Your task to perform on an android device: Open Chrome and go to the settings page Image 0: 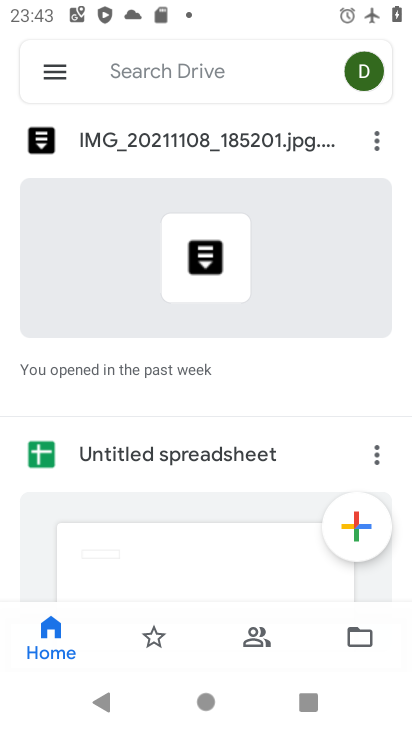
Step 0: press home button
Your task to perform on an android device: Open Chrome and go to the settings page Image 1: 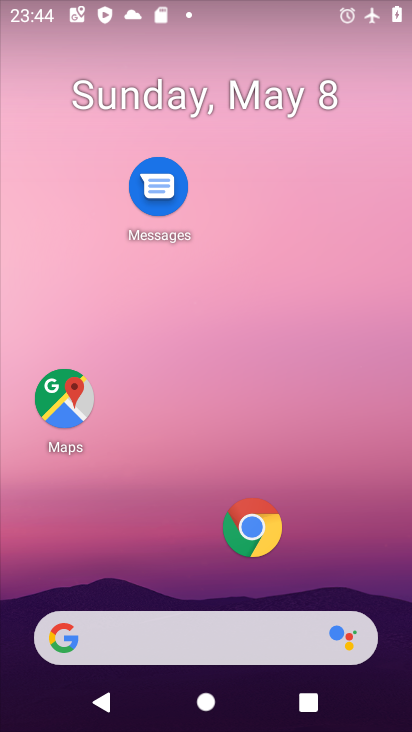
Step 1: click (248, 530)
Your task to perform on an android device: Open Chrome and go to the settings page Image 2: 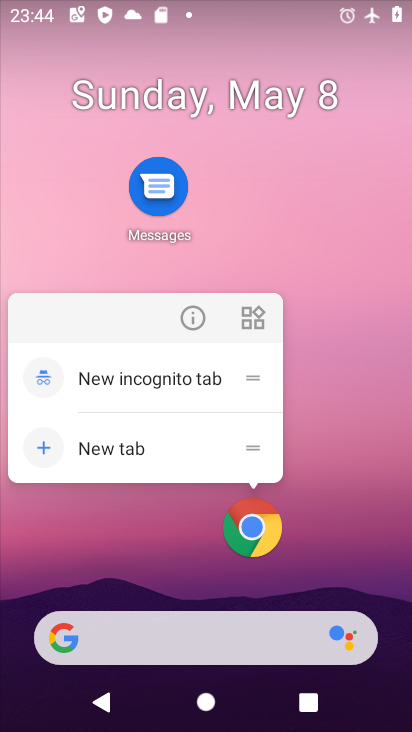
Step 2: click (246, 530)
Your task to perform on an android device: Open Chrome and go to the settings page Image 3: 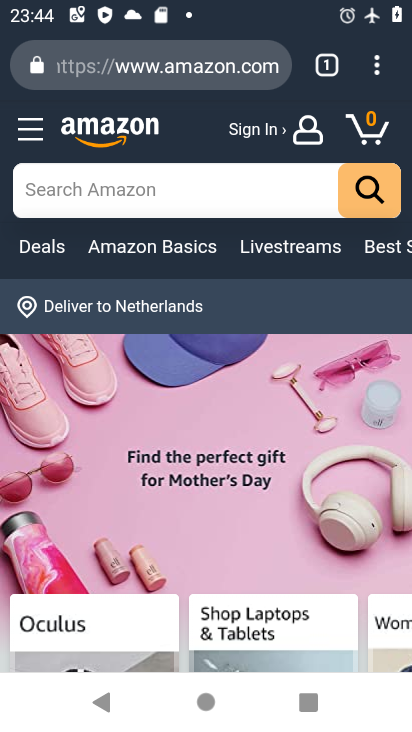
Step 3: click (368, 59)
Your task to perform on an android device: Open Chrome and go to the settings page Image 4: 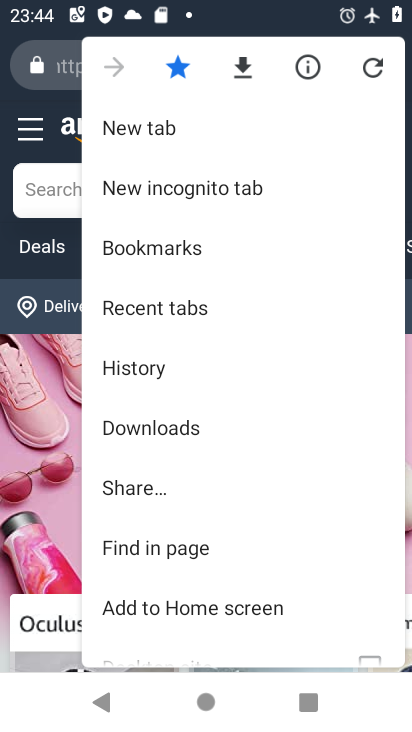
Step 4: drag from (223, 539) to (272, 181)
Your task to perform on an android device: Open Chrome and go to the settings page Image 5: 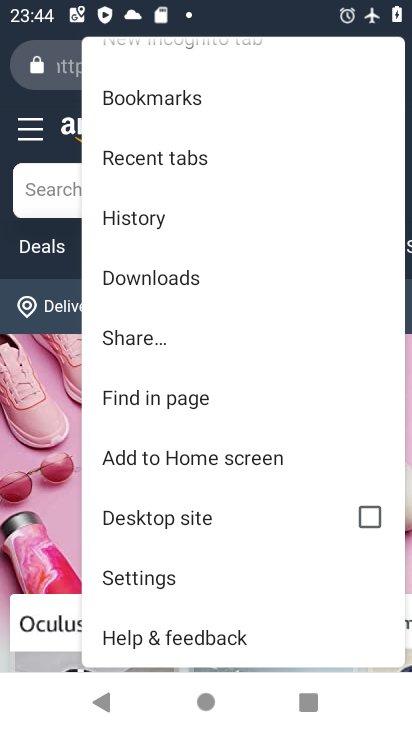
Step 5: click (152, 575)
Your task to perform on an android device: Open Chrome and go to the settings page Image 6: 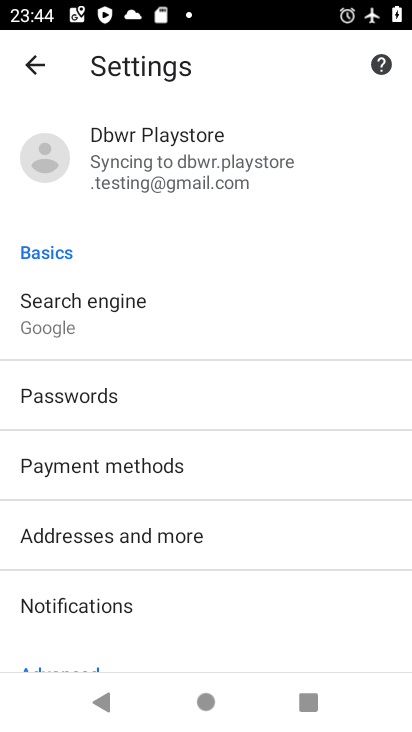
Step 6: task complete